Your task to perform on an android device: toggle improve location accuracy Image 0: 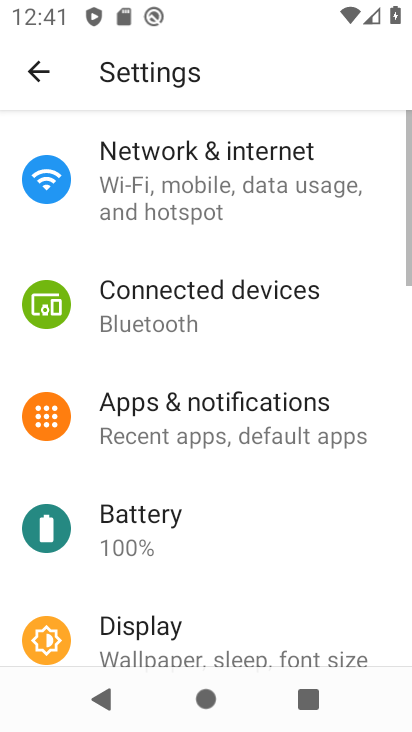
Step 0: drag from (156, 600) to (291, 104)
Your task to perform on an android device: toggle improve location accuracy Image 1: 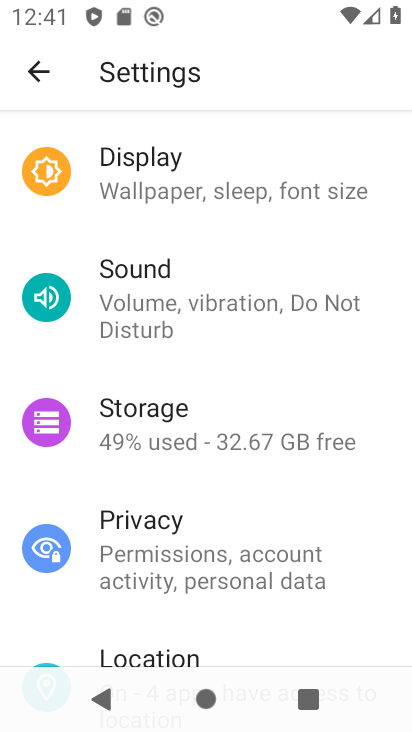
Step 1: drag from (139, 574) to (214, 178)
Your task to perform on an android device: toggle improve location accuracy Image 2: 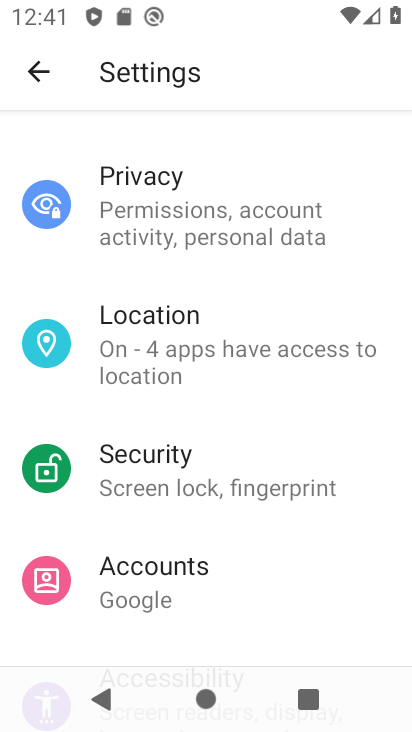
Step 2: click (157, 335)
Your task to perform on an android device: toggle improve location accuracy Image 3: 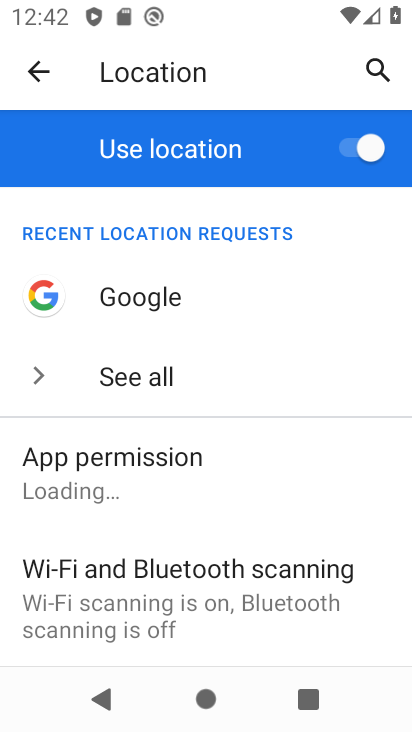
Step 3: drag from (116, 552) to (257, 156)
Your task to perform on an android device: toggle improve location accuracy Image 4: 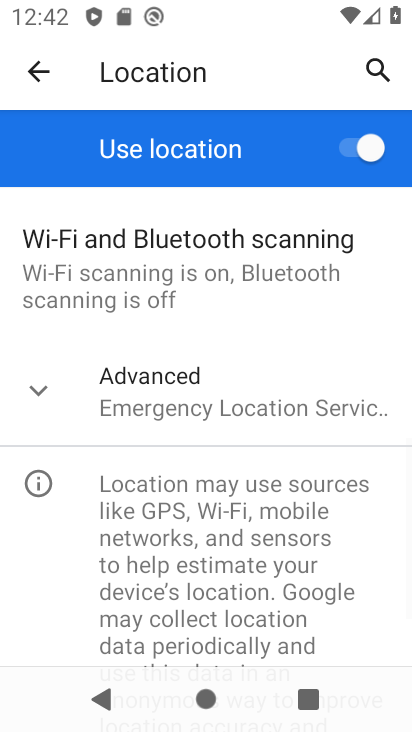
Step 4: click (157, 384)
Your task to perform on an android device: toggle improve location accuracy Image 5: 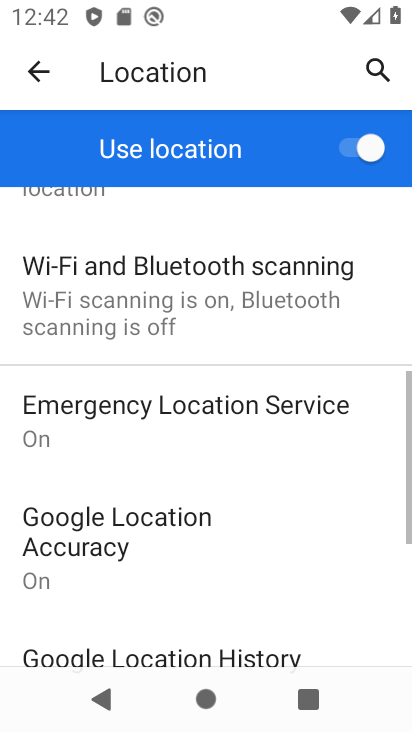
Step 5: drag from (173, 643) to (296, 278)
Your task to perform on an android device: toggle improve location accuracy Image 6: 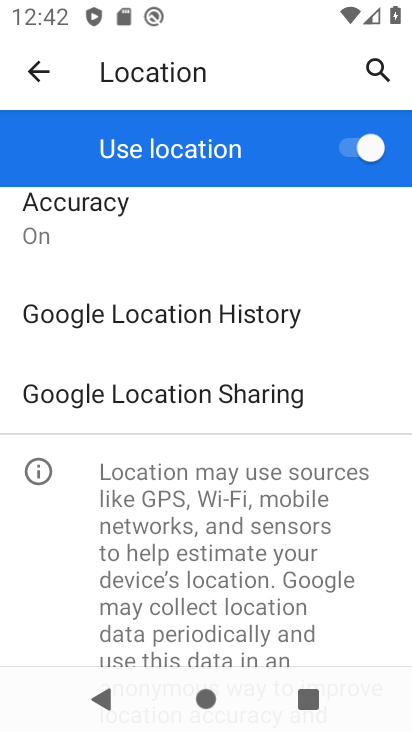
Step 6: drag from (242, 374) to (221, 637)
Your task to perform on an android device: toggle improve location accuracy Image 7: 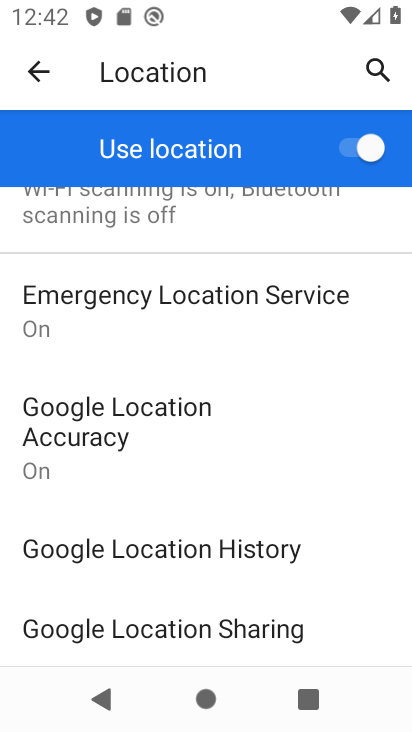
Step 7: click (161, 452)
Your task to perform on an android device: toggle improve location accuracy Image 8: 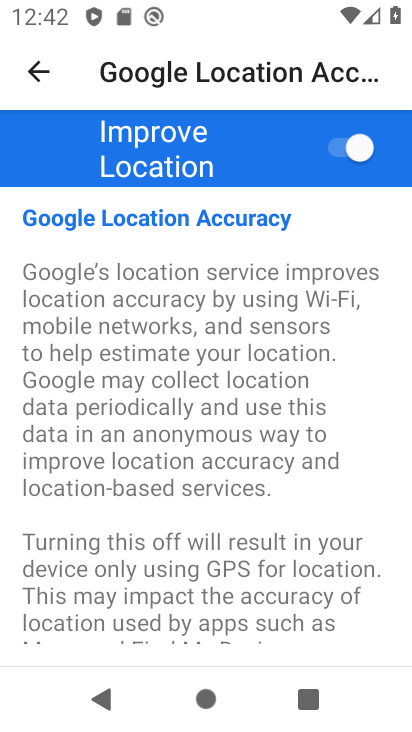
Step 8: click (343, 146)
Your task to perform on an android device: toggle improve location accuracy Image 9: 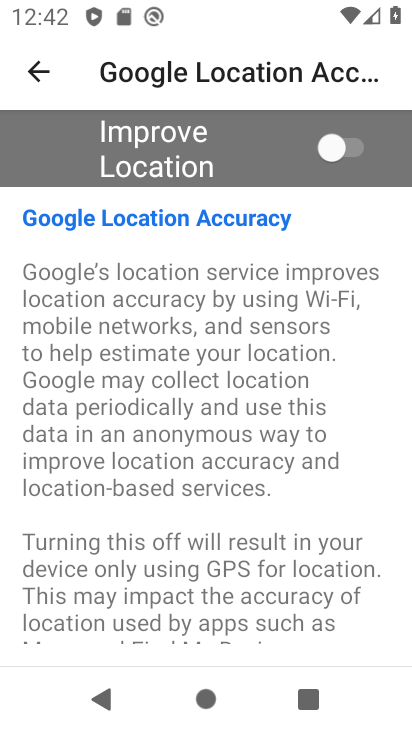
Step 9: task complete